Your task to perform on an android device: turn off javascript in the chrome app Image 0: 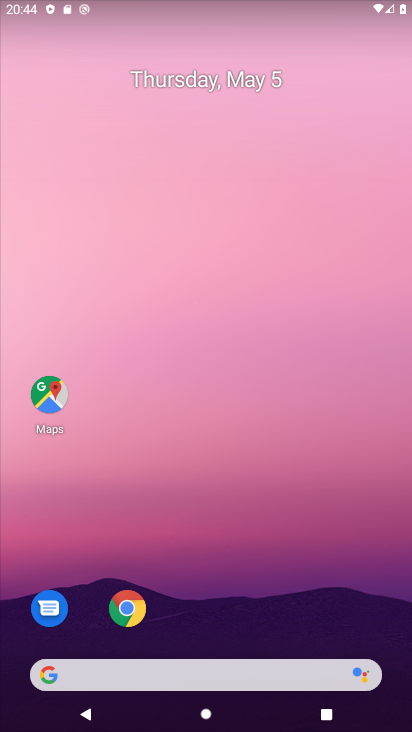
Step 0: drag from (301, 505) to (299, 8)
Your task to perform on an android device: turn off javascript in the chrome app Image 1: 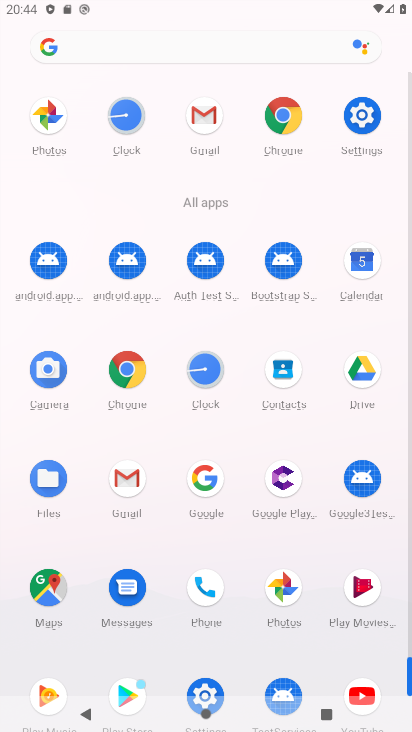
Step 1: click (123, 369)
Your task to perform on an android device: turn off javascript in the chrome app Image 2: 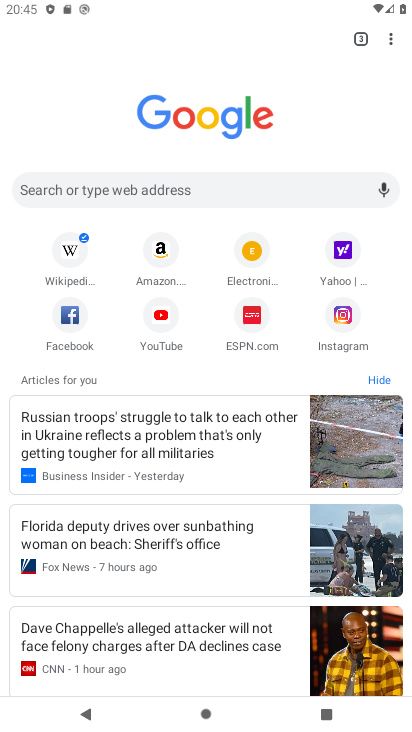
Step 2: drag from (388, 38) to (297, 337)
Your task to perform on an android device: turn off javascript in the chrome app Image 3: 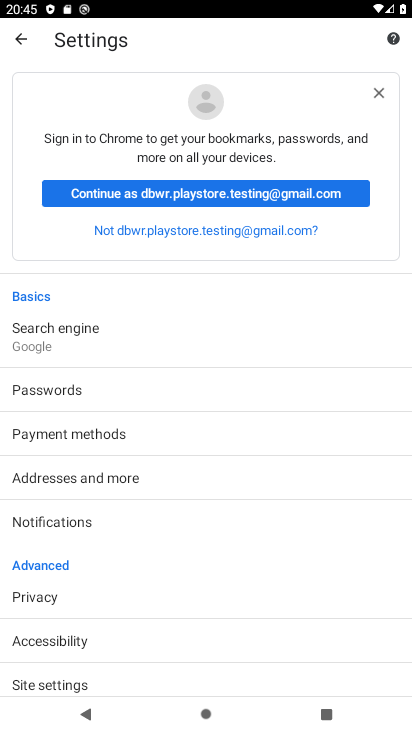
Step 3: click (134, 681)
Your task to perform on an android device: turn off javascript in the chrome app Image 4: 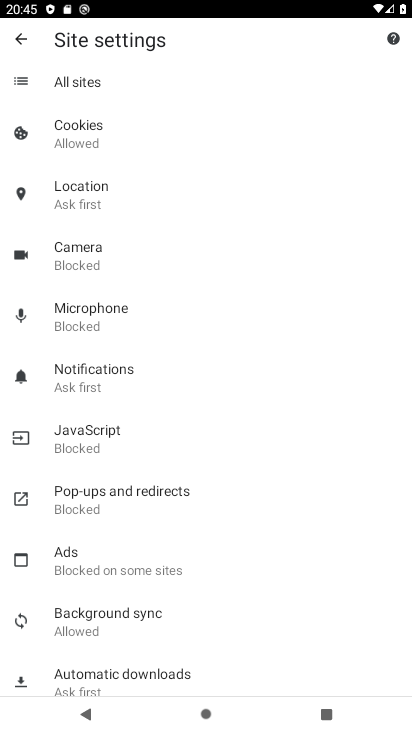
Step 4: click (138, 449)
Your task to perform on an android device: turn off javascript in the chrome app Image 5: 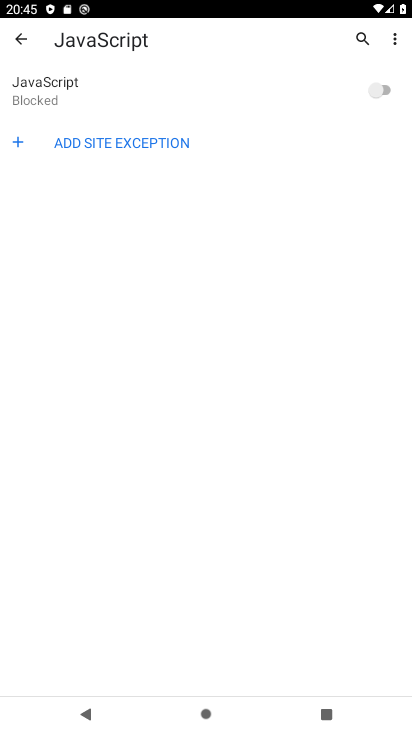
Step 5: task complete